Your task to perform on an android device: Go to sound settings Image 0: 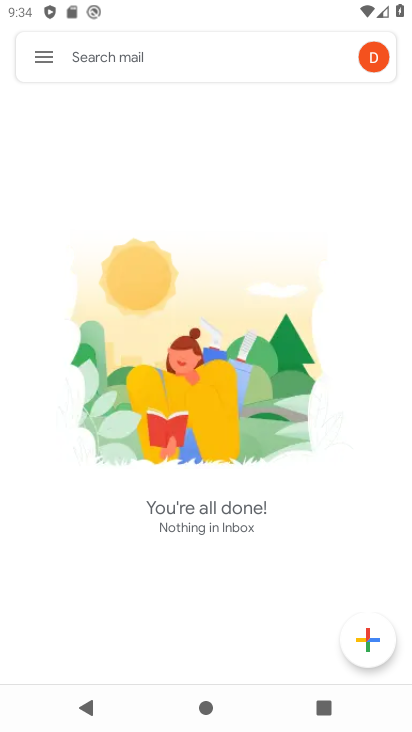
Step 0: press home button
Your task to perform on an android device: Go to sound settings Image 1: 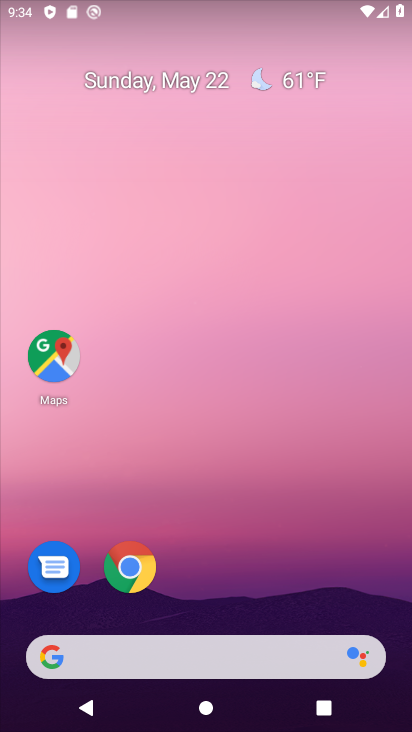
Step 1: drag from (214, 634) to (116, 20)
Your task to perform on an android device: Go to sound settings Image 2: 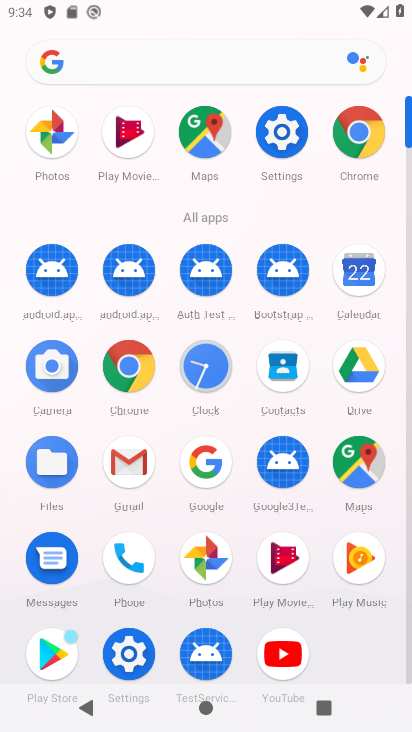
Step 2: click (271, 141)
Your task to perform on an android device: Go to sound settings Image 3: 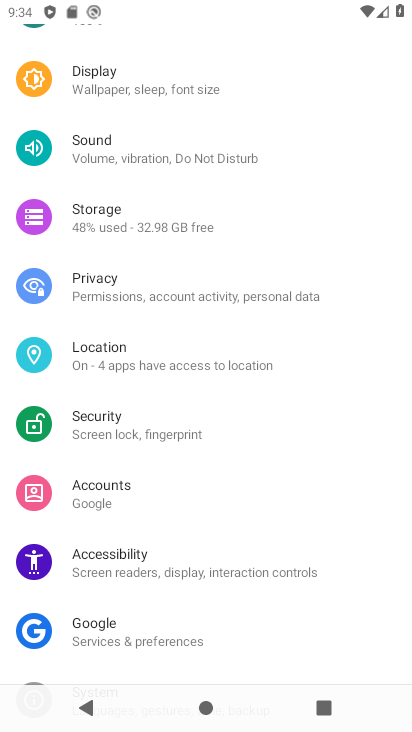
Step 3: click (107, 149)
Your task to perform on an android device: Go to sound settings Image 4: 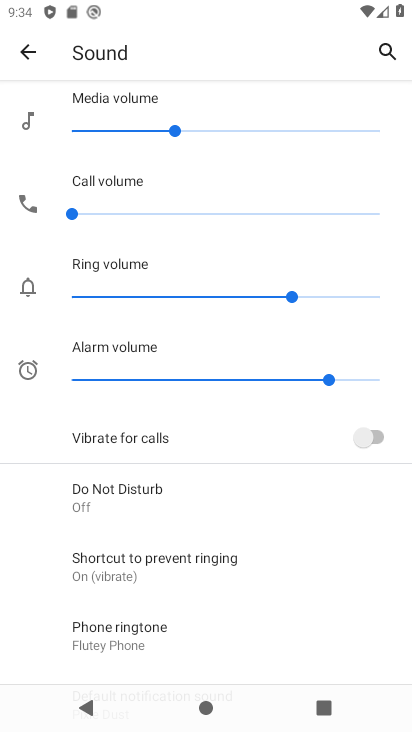
Step 4: task complete